Your task to perform on an android device: turn off translation in the chrome app Image 0: 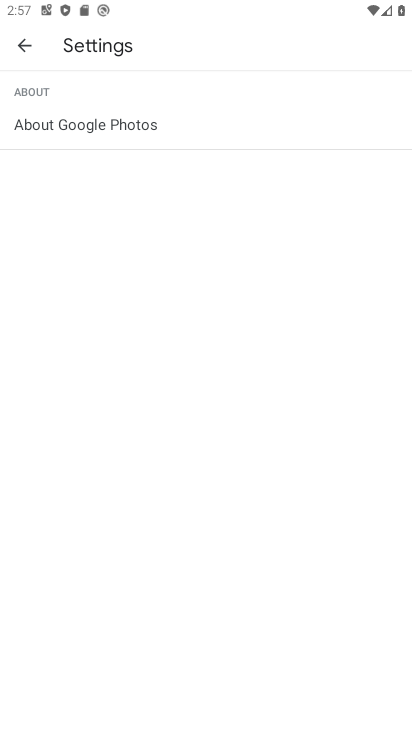
Step 0: press home button
Your task to perform on an android device: turn off translation in the chrome app Image 1: 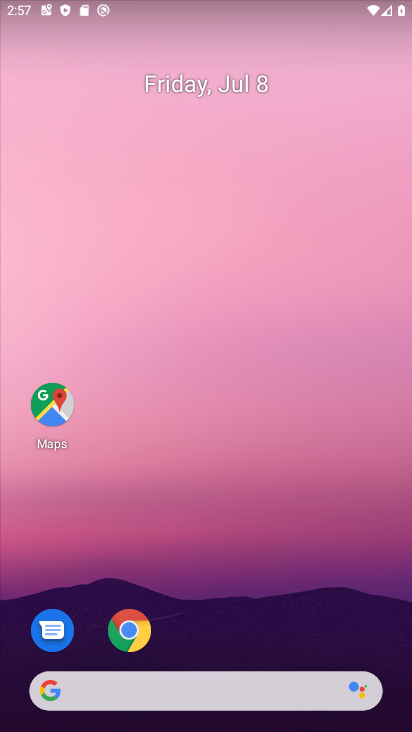
Step 1: click (123, 609)
Your task to perform on an android device: turn off translation in the chrome app Image 2: 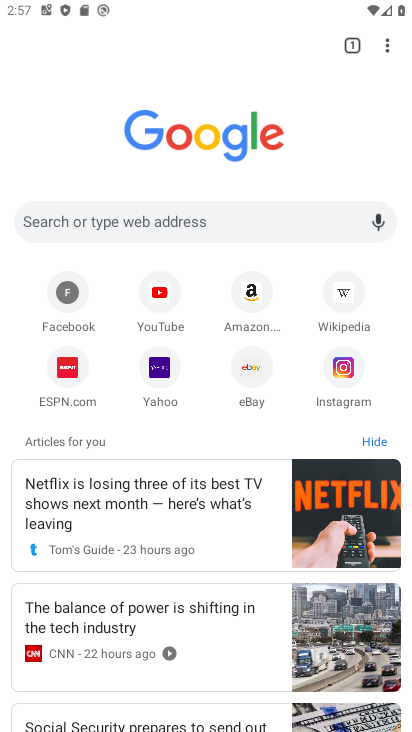
Step 2: click (382, 44)
Your task to perform on an android device: turn off translation in the chrome app Image 3: 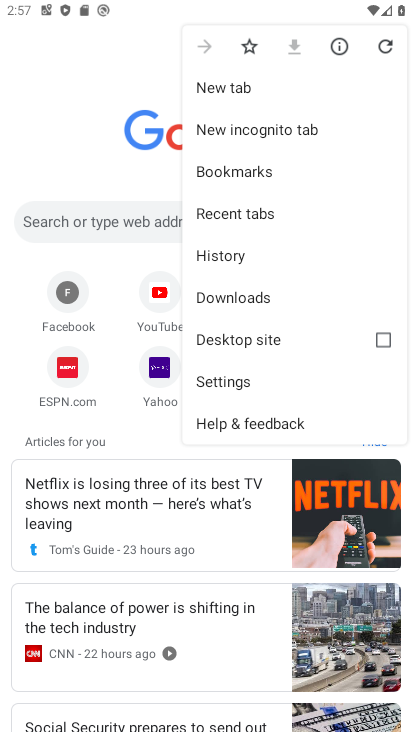
Step 3: click (201, 376)
Your task to perform on an android device: turn off translation in the chrome app Image 4: 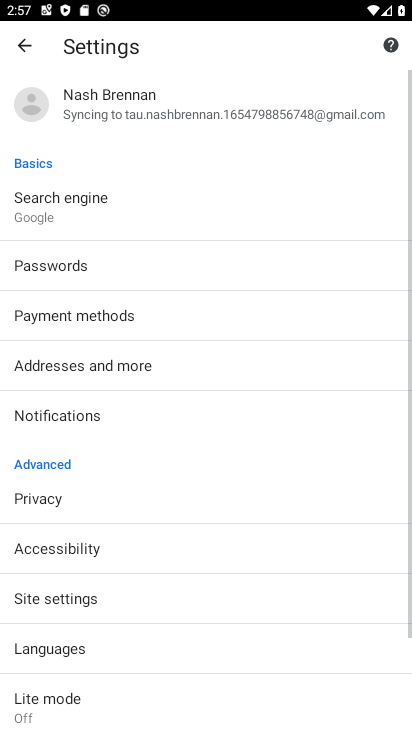
Step 4: drag from (103, 549) to (156, 269)
Your task to perform on an android device: turn off translation in the chrome app Image 5: 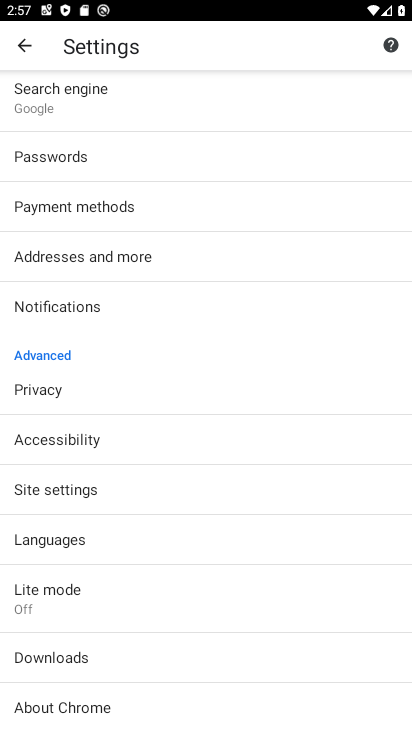
Step 5: click (47, 534)
Your task to perform on an android device: turn off translation in the chrome app Image 6: 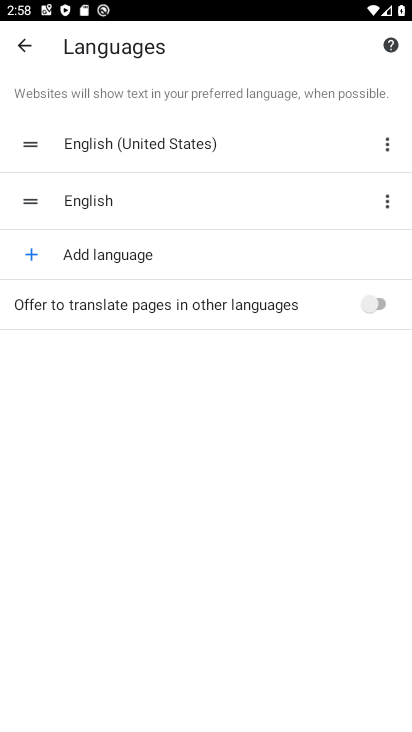
Step 6: click (373, 297)
Your task to perform on an android device: turn off translation in the chrome app Image 7: 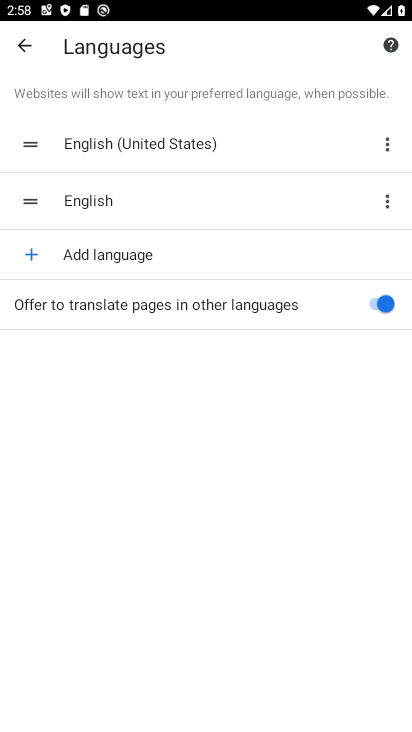
Step 7: click (373, 297)
Your task to perform on an android device: turn off translation in the chrome app Image 8: 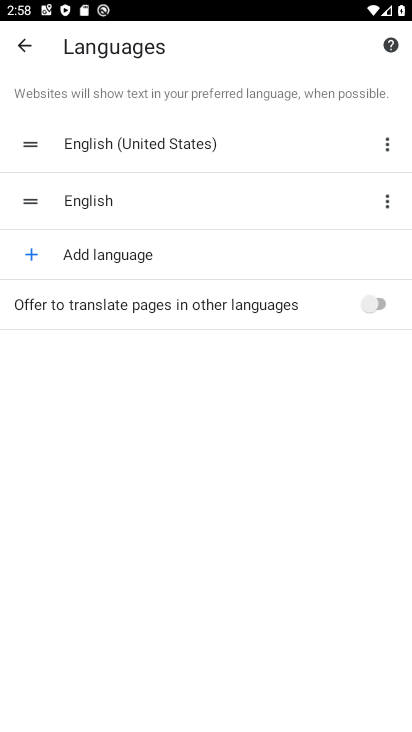
Step 8: task complete